Your task to perform on an android device: Open the map Image 0: 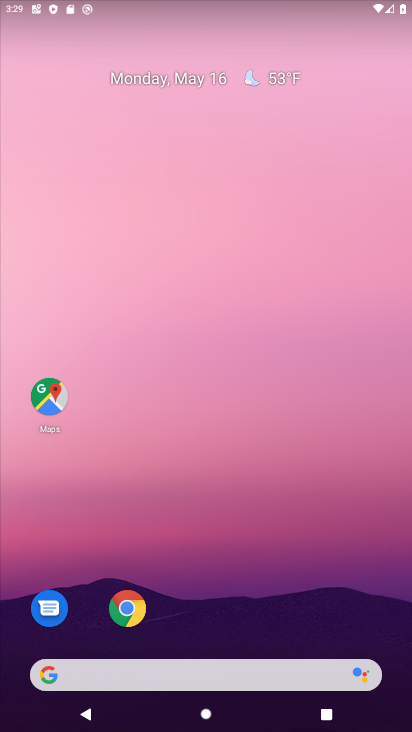
Step 0: click (50, 395)
Your task to perform on an android device: Open the map Image 1: 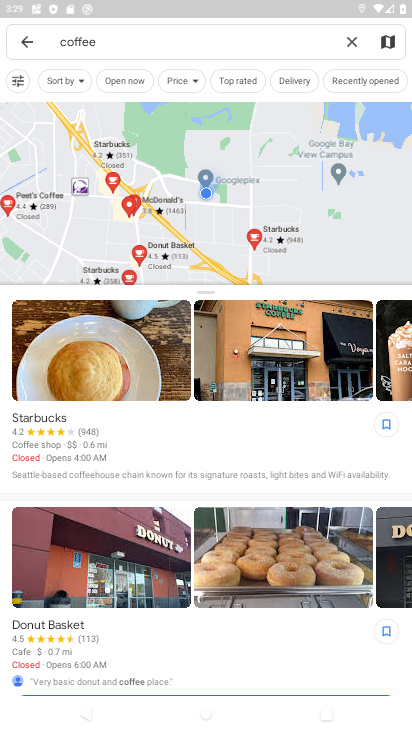
Step 1: task complete